Your task to perform on an android device: delete a single message in the gmail app Image 0: 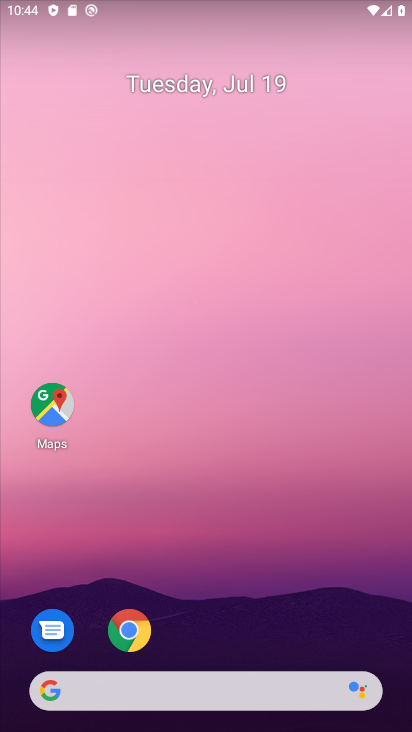
Step 0: drag from (191, 666) to (191, 129)
Your task to perform on an android device: delete a single message in the gmail app Image 1: 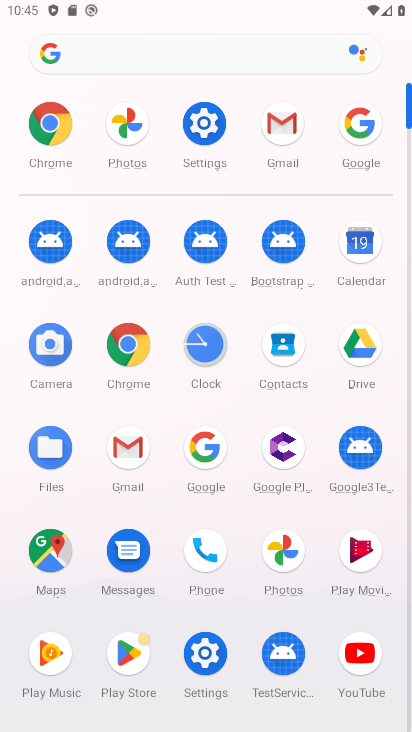
Step 1: click (129, 455)
Your task to perform on an android device: delete a single message in the gmail app Image 2: 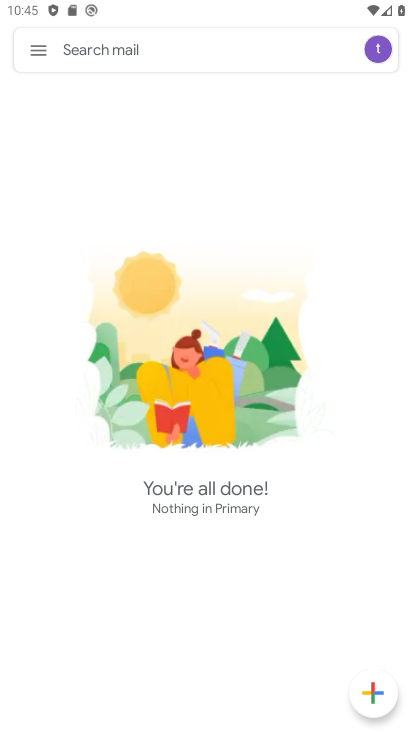
Step 2: click (35, 44)
Your task to perform on an android device: delete a single message in the gmail app Image 3: 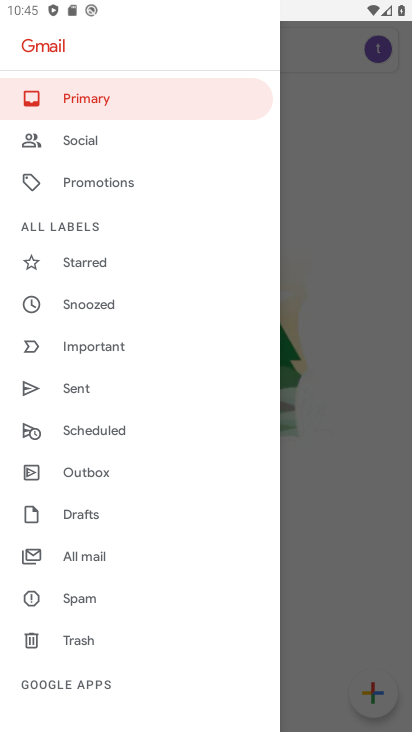
Step 3: click (310, 169)
Your task to perform on an android device: delete a single message in the gmail app Image 4: 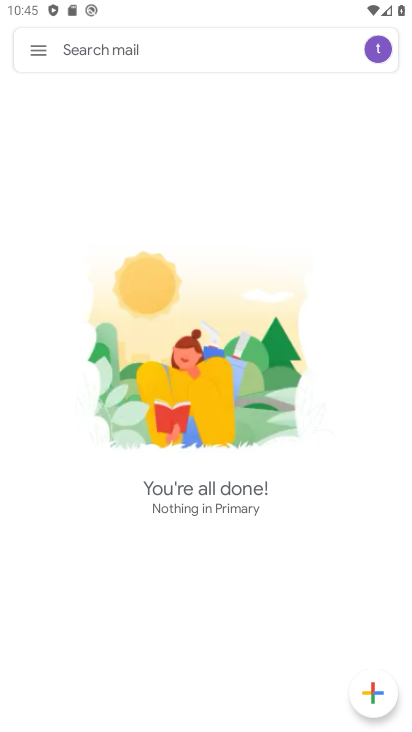
Step 4: task complete